Your task to perform on an android device: Open Maps and search for coffee Image 0: 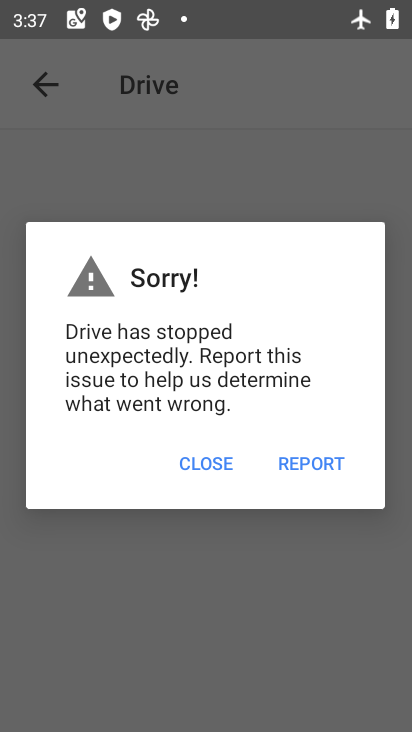
Step 0: press home button
Your task to perform on an android device: Open Maps and search for coffee Image 1: 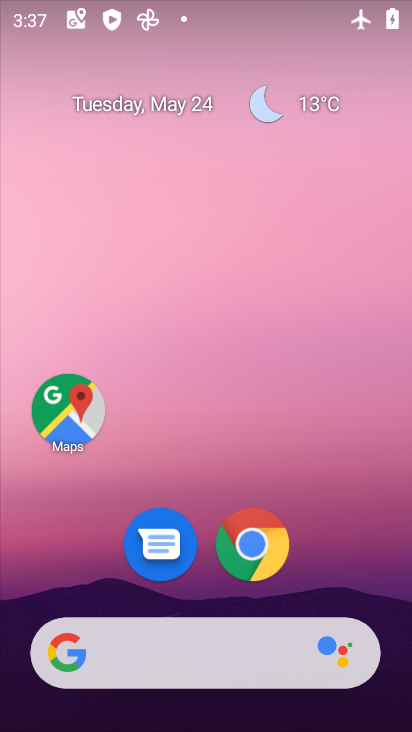
Step 1: drag from (370, 422) to (404, 28)
Your task to perform on an android device: Open Maps and search for coffee Image 2: 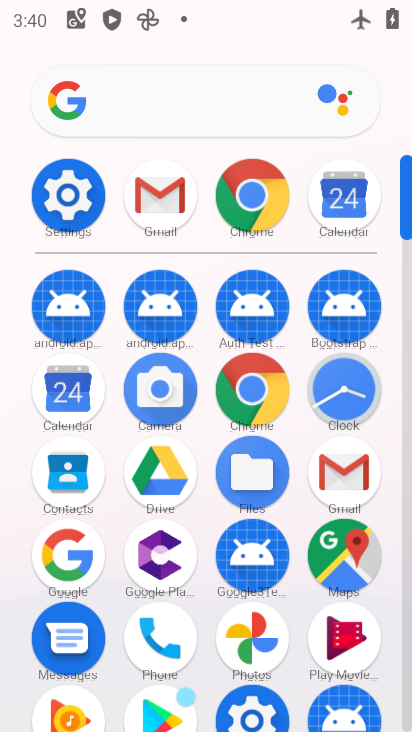
Step 2: click (347, 581)
Your task to perform on an android device: Open Maps and search for coffee Image 3: 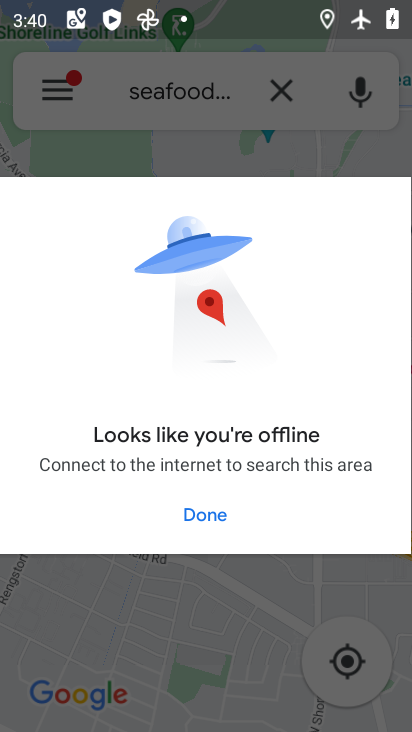
Step 3: task complete